Your task to perform on an android device: Open eBay Image 0: 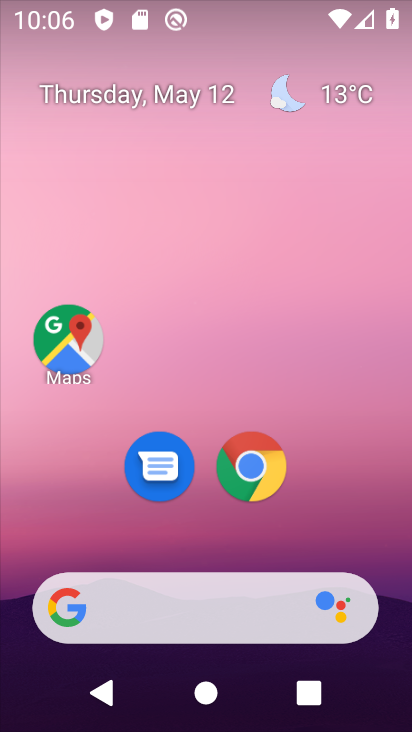
Step 0: click (247, 472)
Your task to perform on an android device: Open eBay Image 1: 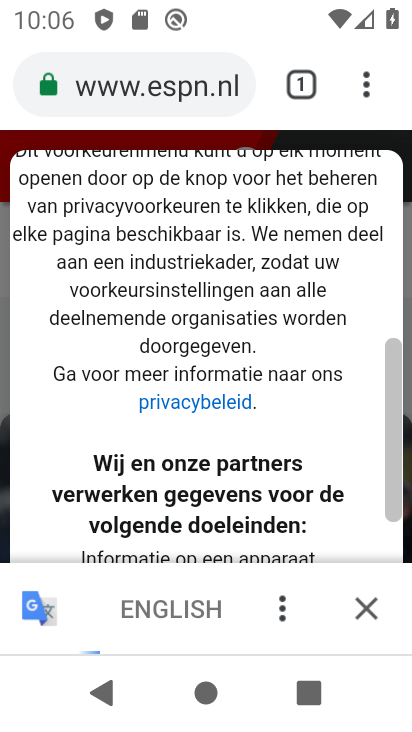
Step 1: click (313, 84)
Your task to perform on an android device: Open eBay Image 2: 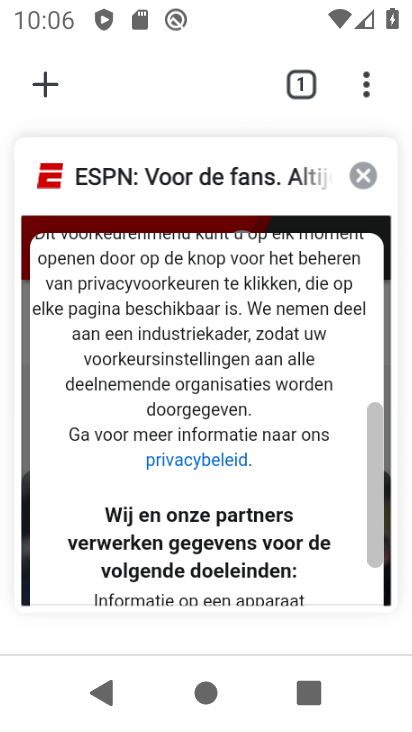
Step 2: click (34, 81)
Your task to perform on an android device: Open eBay Image 3: 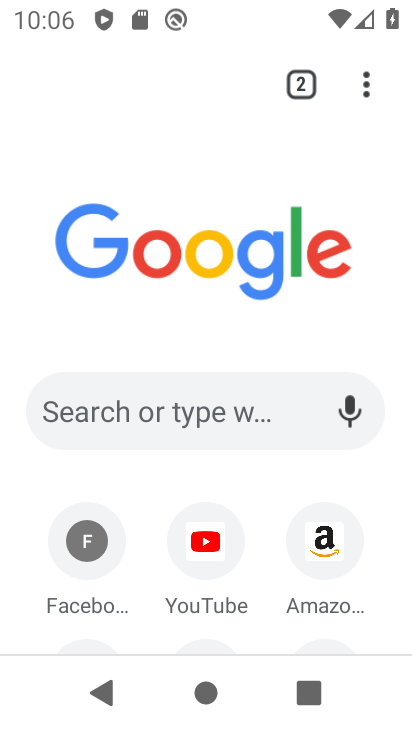
Step 3: click (97, 405)
Your task to perform on an android device: Open eBay Image 4: 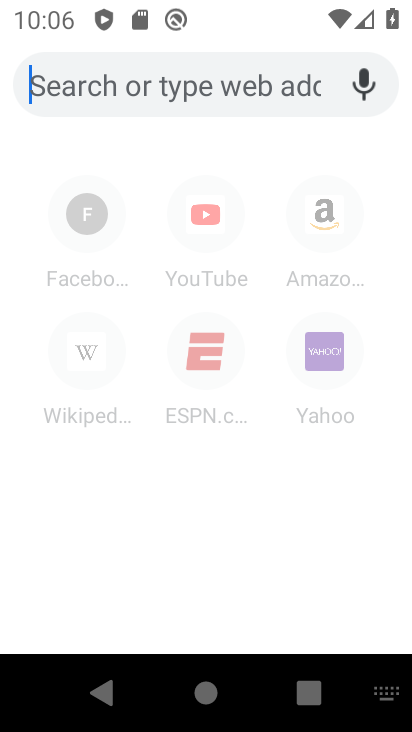
Step 4: type "ebay"
Your task to perform on an android device: Open eBay Image 5: 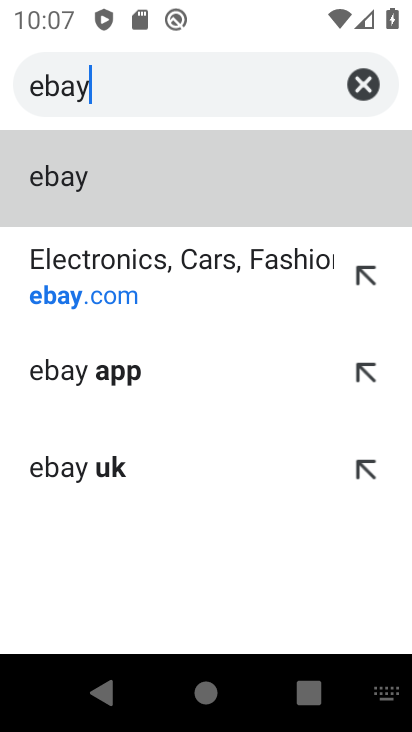
Step 5: click (77, 244)
Your task to perform on an android device: Open eBay Image 6: 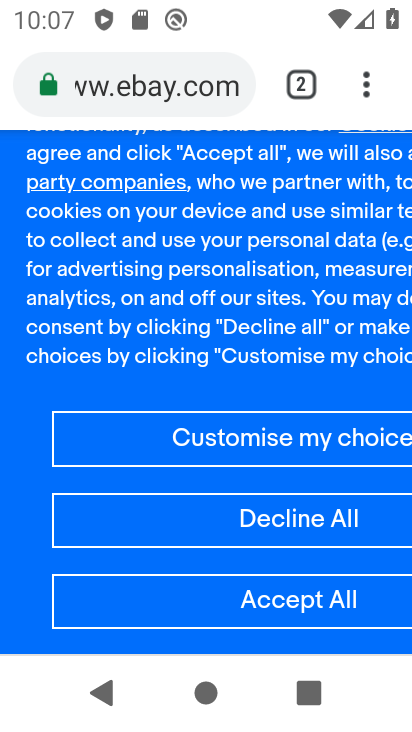
Step 6: task complete